Your task to perform on an android device: show emergency info Image 0: 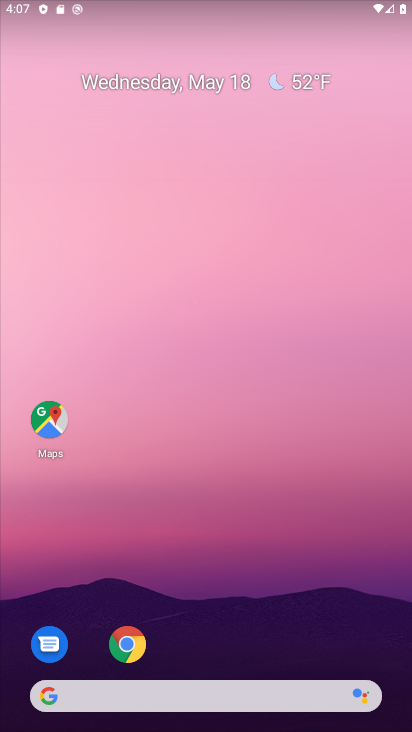
Step 0: drag from (220, 673) to (140, 44)
Your task to perform on an android device: show emergency info Image 1: 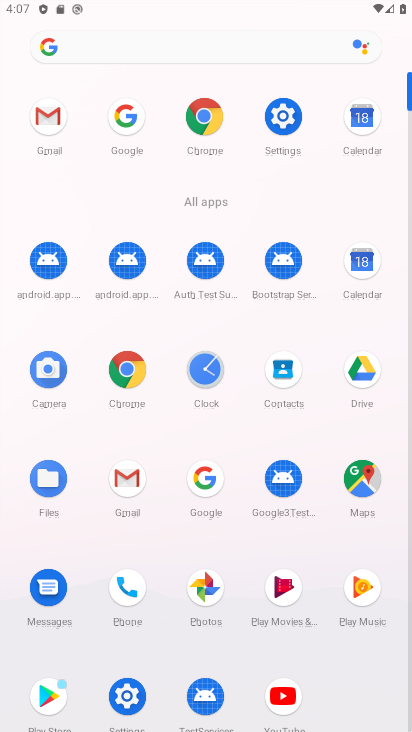
Step 1: click (294, 128)
Your task to perform on an android device: show emergency info Image 2: 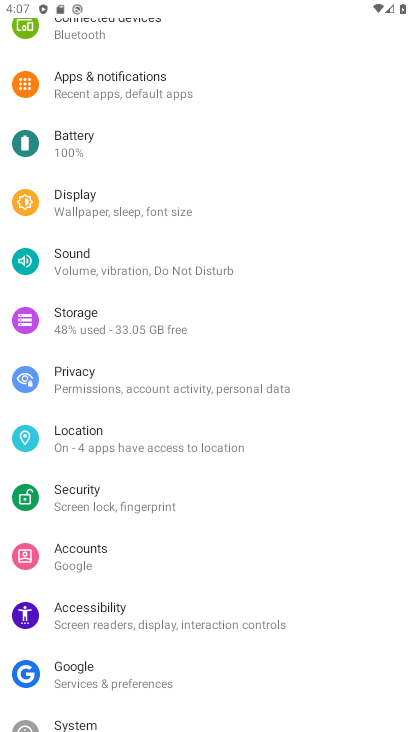
Step 2: drag from (115, 575) to (62, 107)
Your task to perform on an android device: show emergency info Image 3: 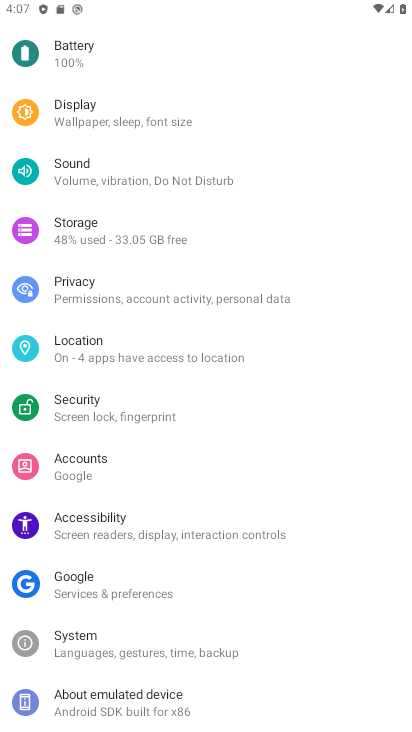
Step 3: click (137, 694)
Your task to perform on an android device: show emergency info Image 4: 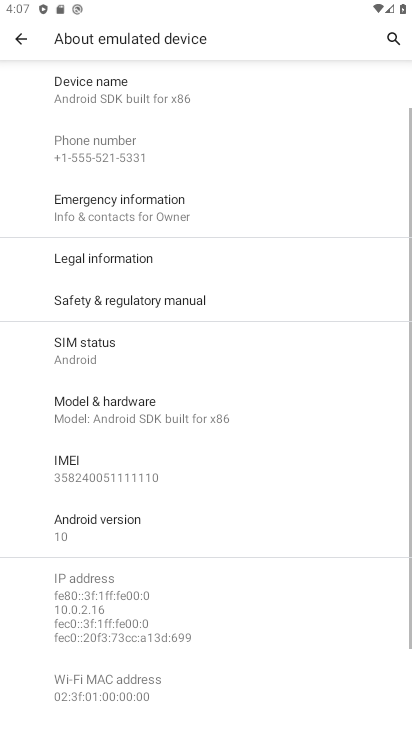
Step 4: click (94, 234)
Your task to perform on an android device: show emergency info Image 5: 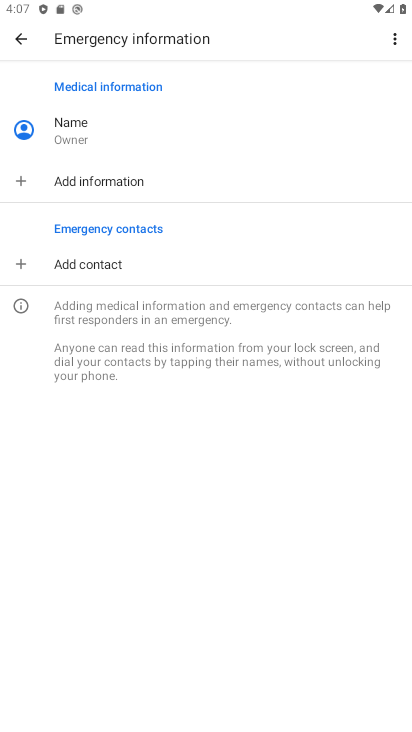
Step 5: task complete